Your task to perform on an android device: Go to battery settings Image 0: 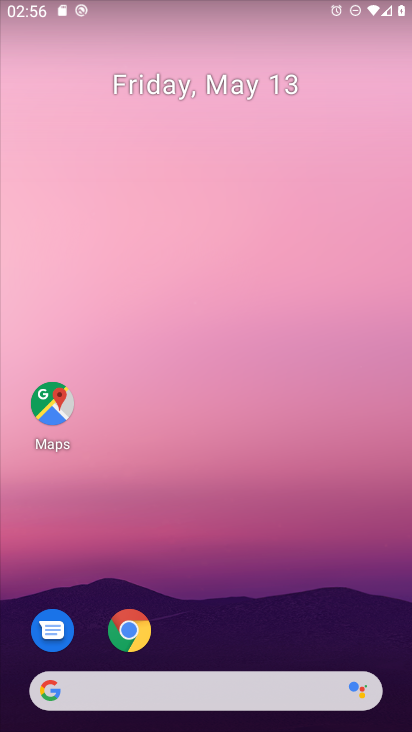
Step 0: drag from (277, 697) to (232, 255)
Your task to perform on an android device: Go to battery settings Image 1: 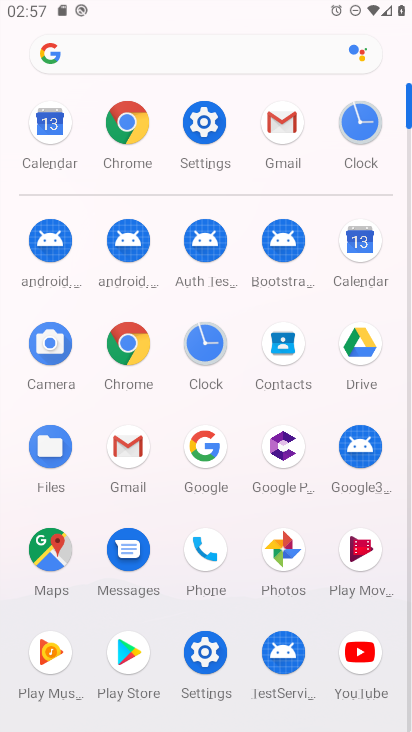
Step 1: click (199, 128)
Your task to perform on an android device: Go to battery settings Image 2: 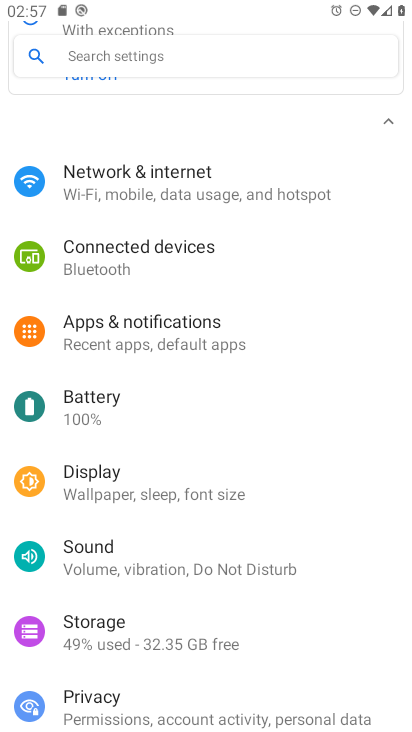
Step 2: click (179, 395)
Your task to perform on an android device: Go to battery settings Image 3: 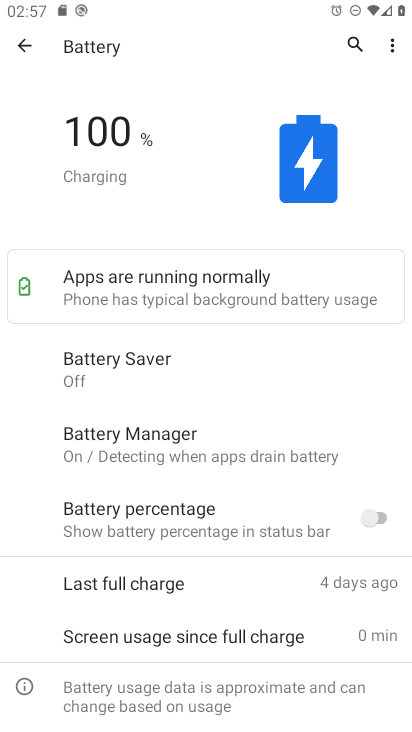
Step 3: task complete